Your task to perform on an android device: open chrome and create a bookmark for the current page Image 0: 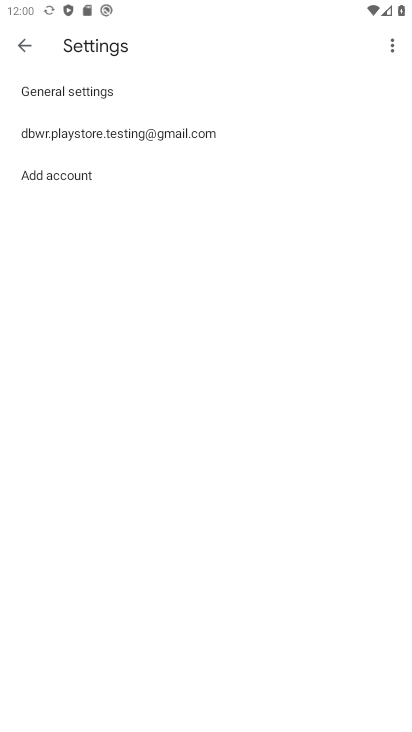
Step 0: click (232, 599)
Your task to perform on an android device: open chrome and create a bookmark for the current page Image 1: 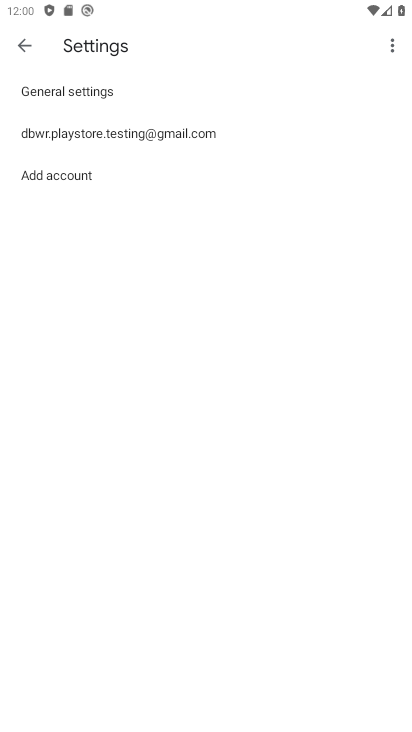
Step 1: press home button
Your task to perform on an android device: open chrome and create a bookmark for the current page Image 2: 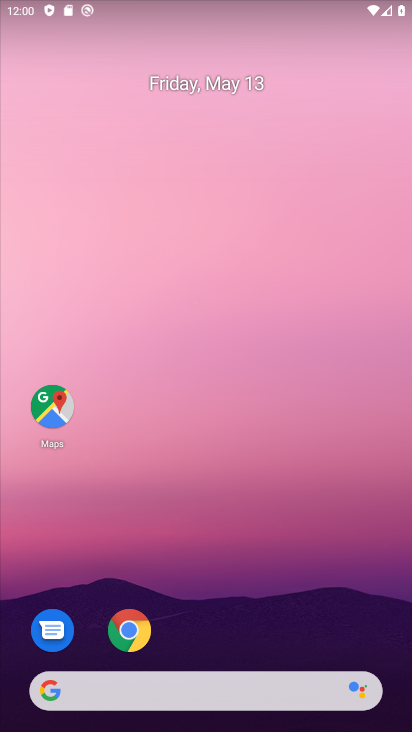
Step 2: drag from (344, 600) to (266, 63)
Your task to perform on an android device: open chrome and create a bookmark for the current page Image 3: 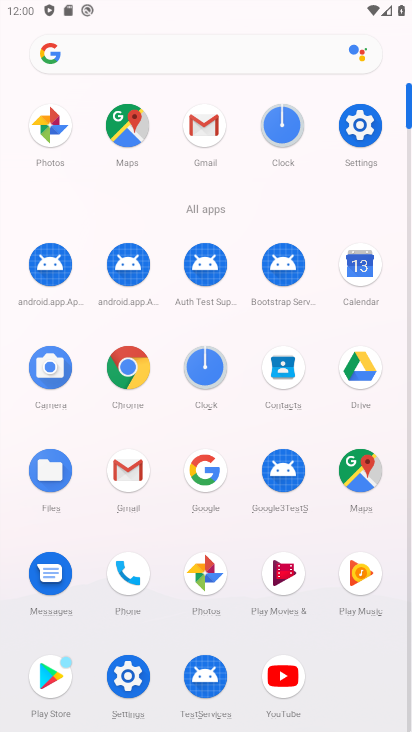
Step 3: click (138, 380)
Your task to perform on an android device: open chrome and create a bookmark for the current page Image 4: 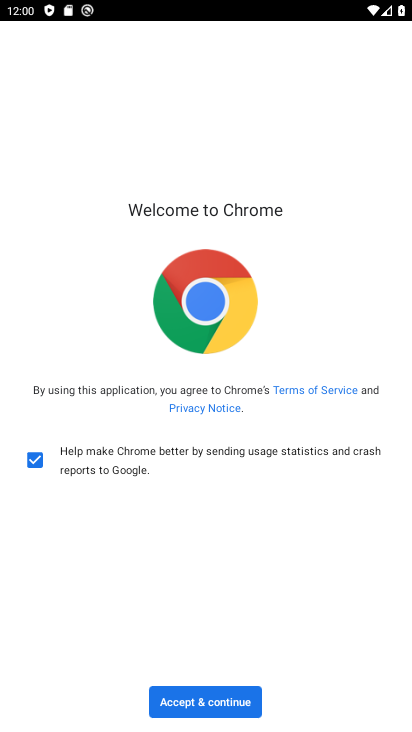
Step 4: click (219, 708)
Your task to perform on an android device: open chrome and create a bookmark for the current page Image 5: 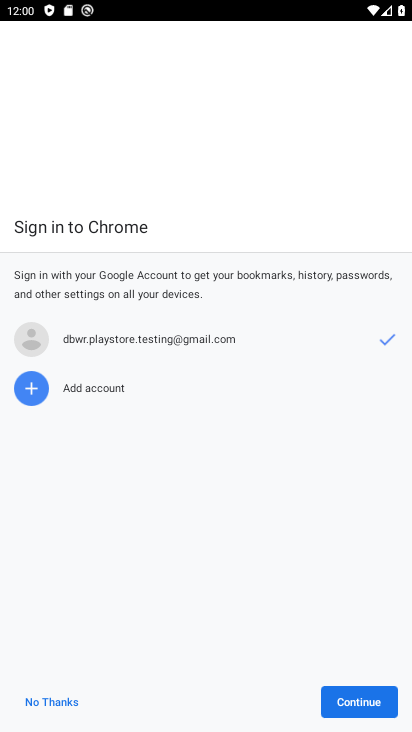
Step 5: click (337, 698)
Your task to perform on an android device: open chrome and create a bookmark for the current page Image 6: 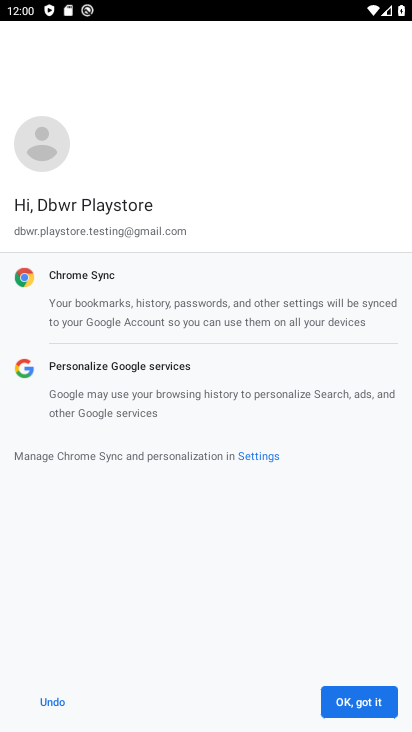
Step 6: click (337, 698)
Your task to perform on an android device: open chrome and create a bookmark for the current page Image 7: 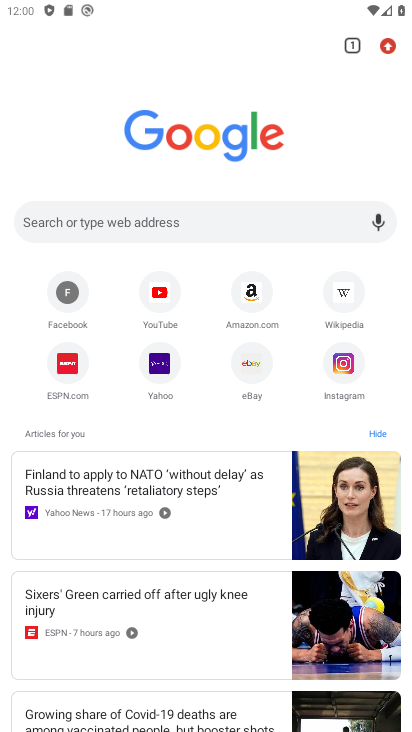
Step 7: click (102, 494)
Your task to perform on an android device: open chrome and create a bookmark for the current page Image 8: 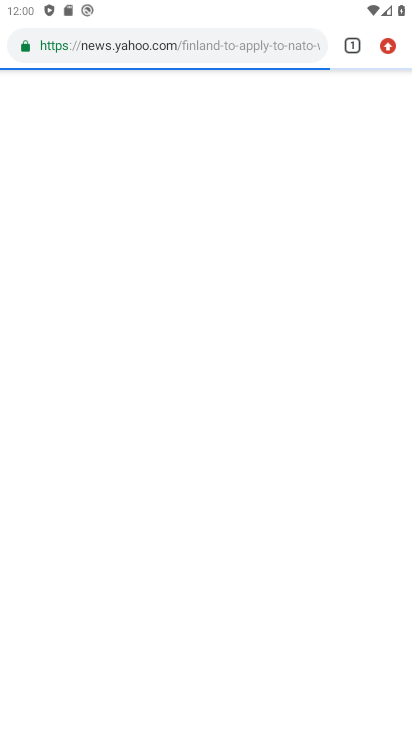
Step 8: task complete